Your task to perform on an android device: add a label to a message in the gmail app Image 0: 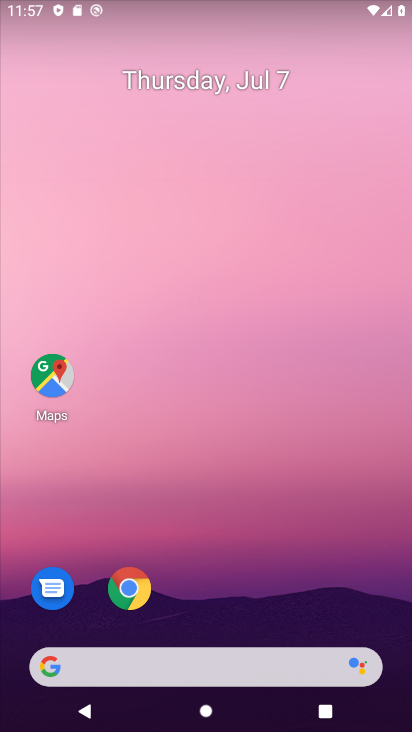
Step 0: drag from (211, 542) to (167, 21)
Your task to perform on an android device: add a label to a message in the gmail app Image 1: 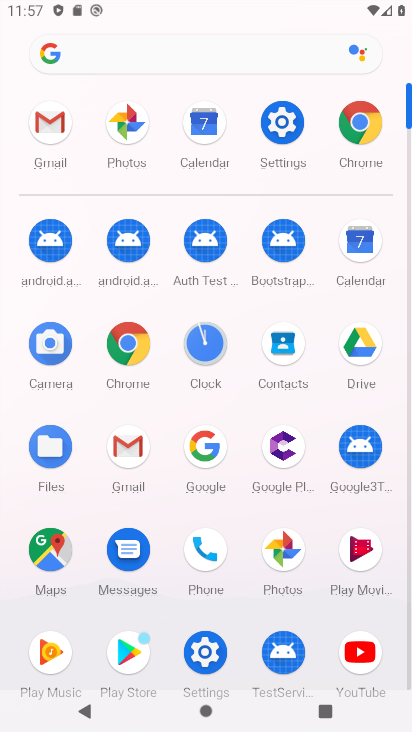
Step 1: click (45, 156)
Your task to perform on an android device: add a label to a message in the gmail app Image 2: 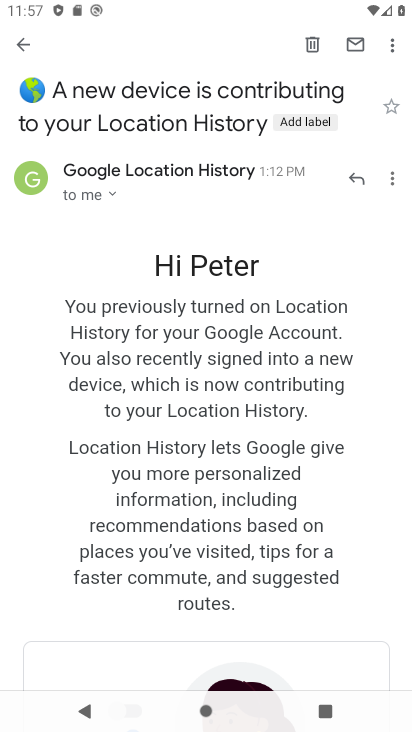
Step 2: click (313, 119)
Your task to perform on an android device: add a label to a message in the gmail app Image 3: 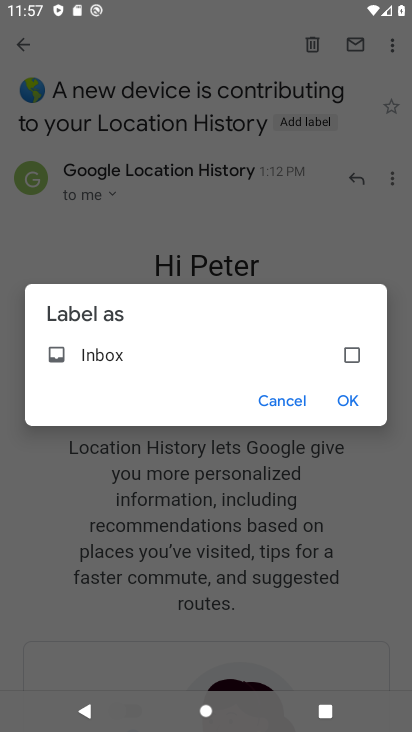
Step 3: click (352, 351)
Your task to perform on an android device: add a label to a message in the gmail app Image 4: 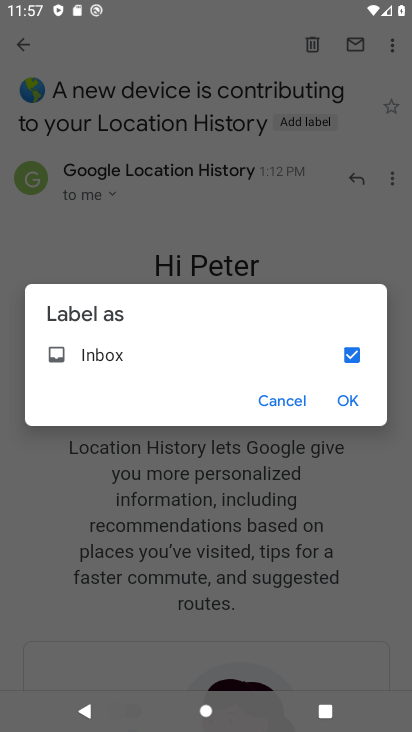
Step 4: click (347, 395)
Your task to perform on an android device: add a label to a message in the gmail app Image 5: 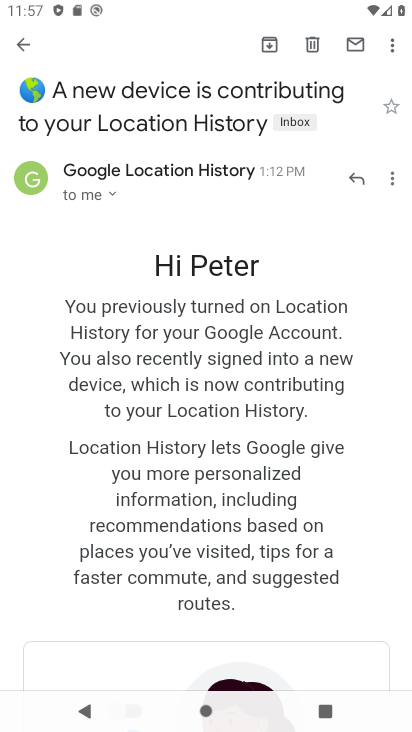
Step 5: task complete